Your task to perform on an android device: all mails in gmail Image 0: 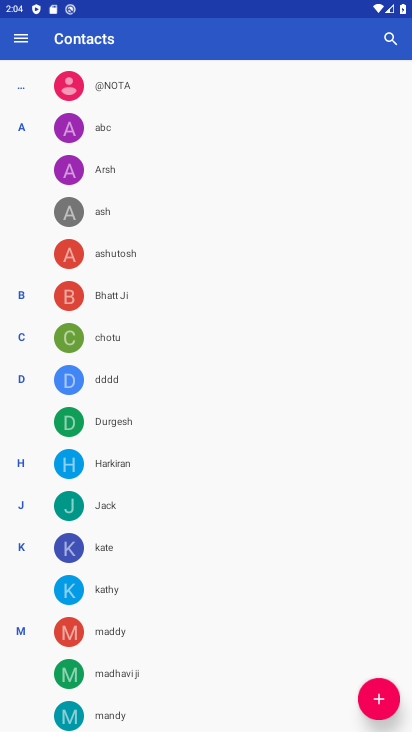
Step 0: press home button
Your task to perform on an android device: all mails in gmail Image 1: 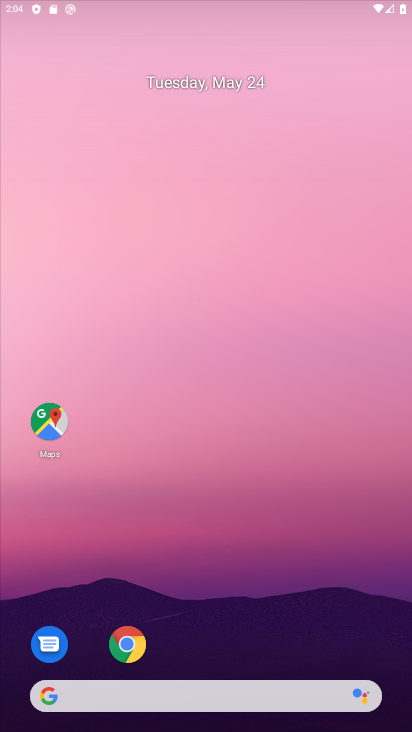
Step 1: drag from (187, 624) to (240, 109)
Your task to perform on an android device: all mails in gmail Image 2: 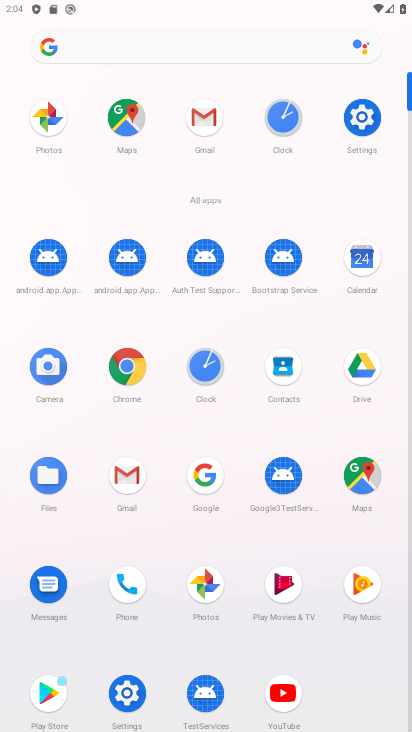
Step 2: click (203, 111)
Your task to perform on an android device: all mails in gmail Image 3: 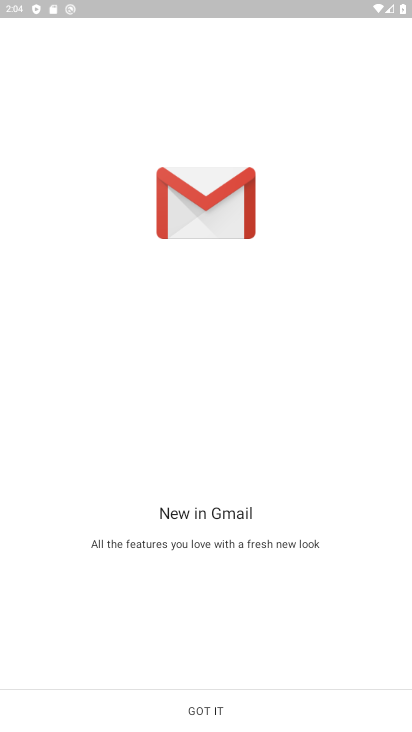
Step 3: click (212, 715)
Your task to perform on an android device: all mails in gmail Image 4: 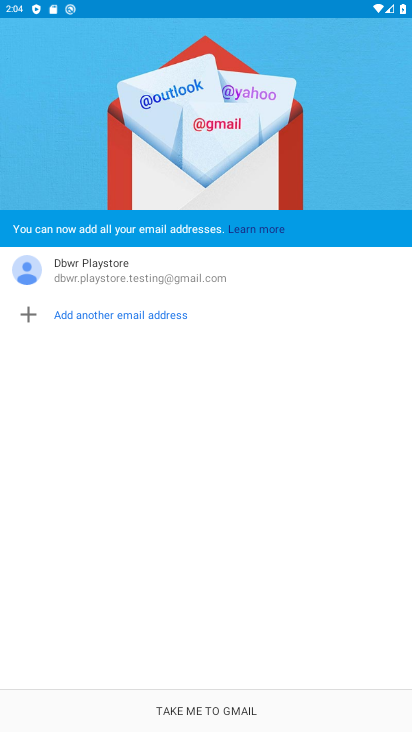
Step 4: click (211, 715)
Your task to perform on an android device: all mails in gmail Image 5: 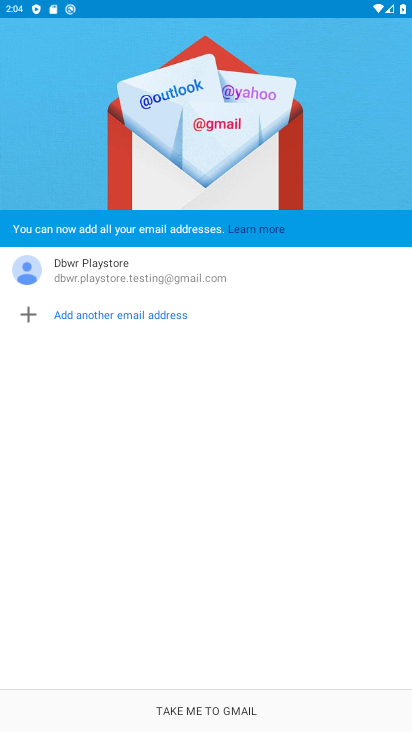
Step 5: click (211, 715)
Your task to perform on an android device: all mails in gmail Image 6: 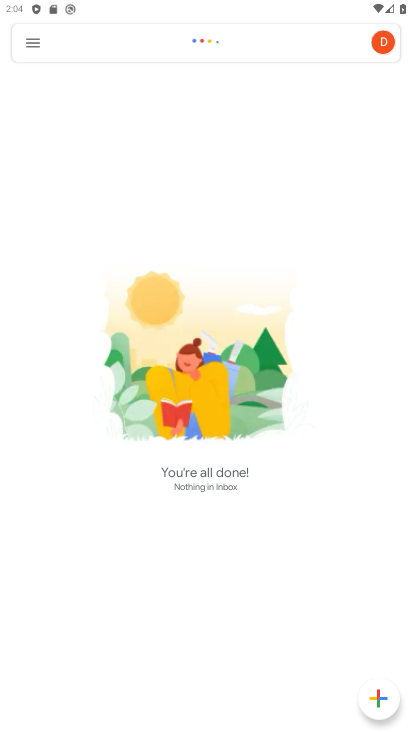
Step 6: click (32, 37)
Your task to perform on an android device: all mails in gmail Image 7: 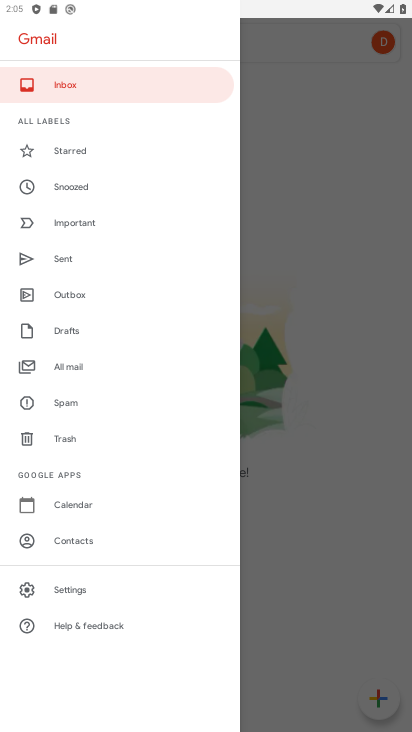
Step 7: click (98, 371)
Your task to perform on an android device: all mails in gmail Image 8: 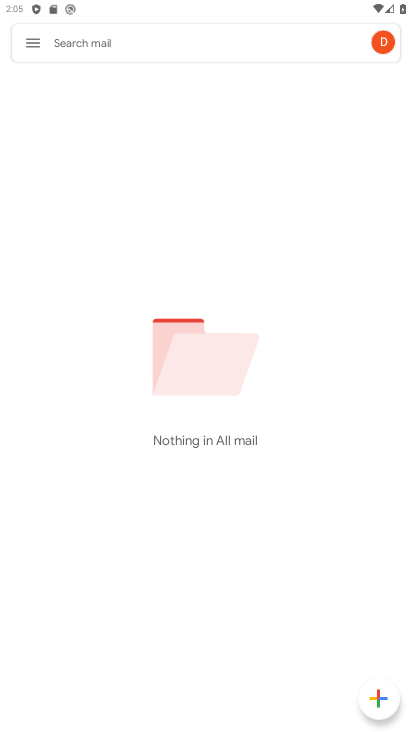
Step 8: task complete